Your task to perform on an android device: Open Chrome and go to the settings page Image 0: 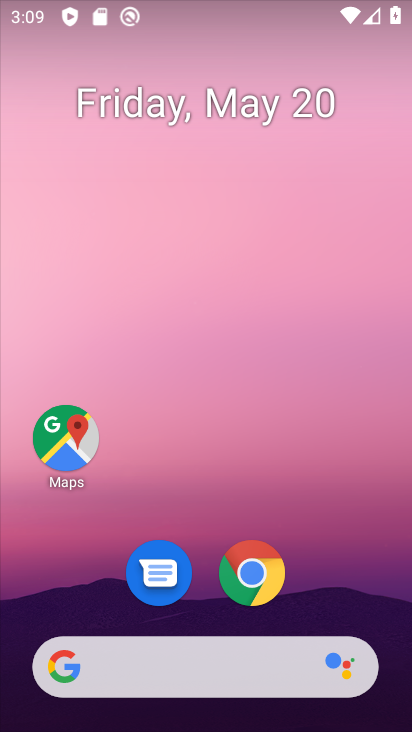
Step 0: click (258, 572)
Your task to perform on an android device: Open Chrome and go to the settings page Image 1: 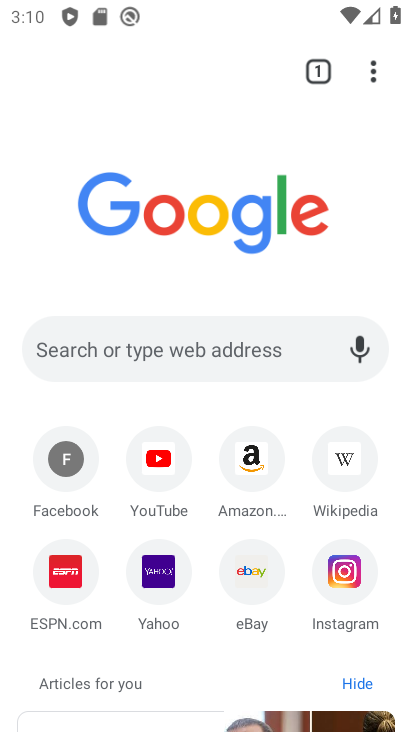
Step 1: task complete